Your task to perform on an android device: uninstall "Venmo" Image 0: 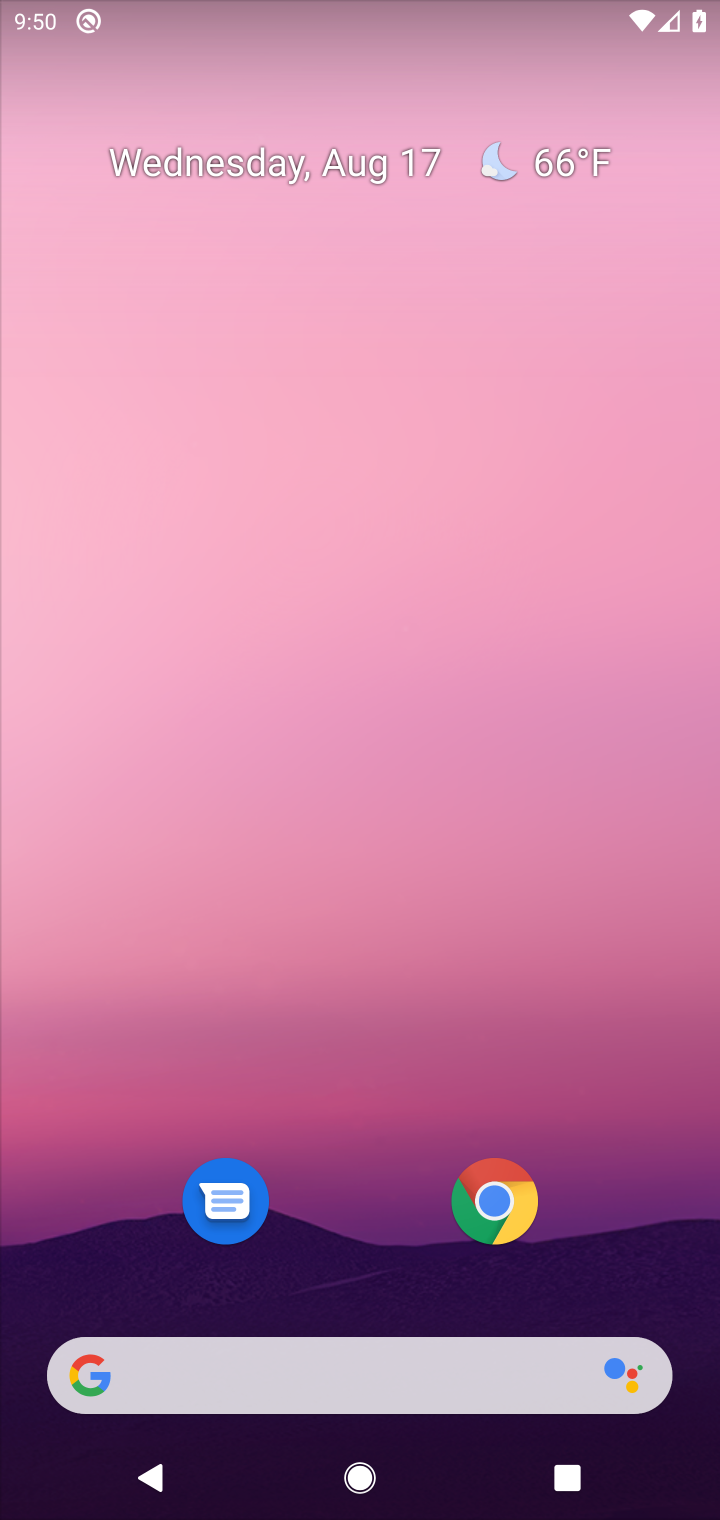
Step 0: press home button
Your task to perform on an android device: uninstall "Venmo" Image 1: 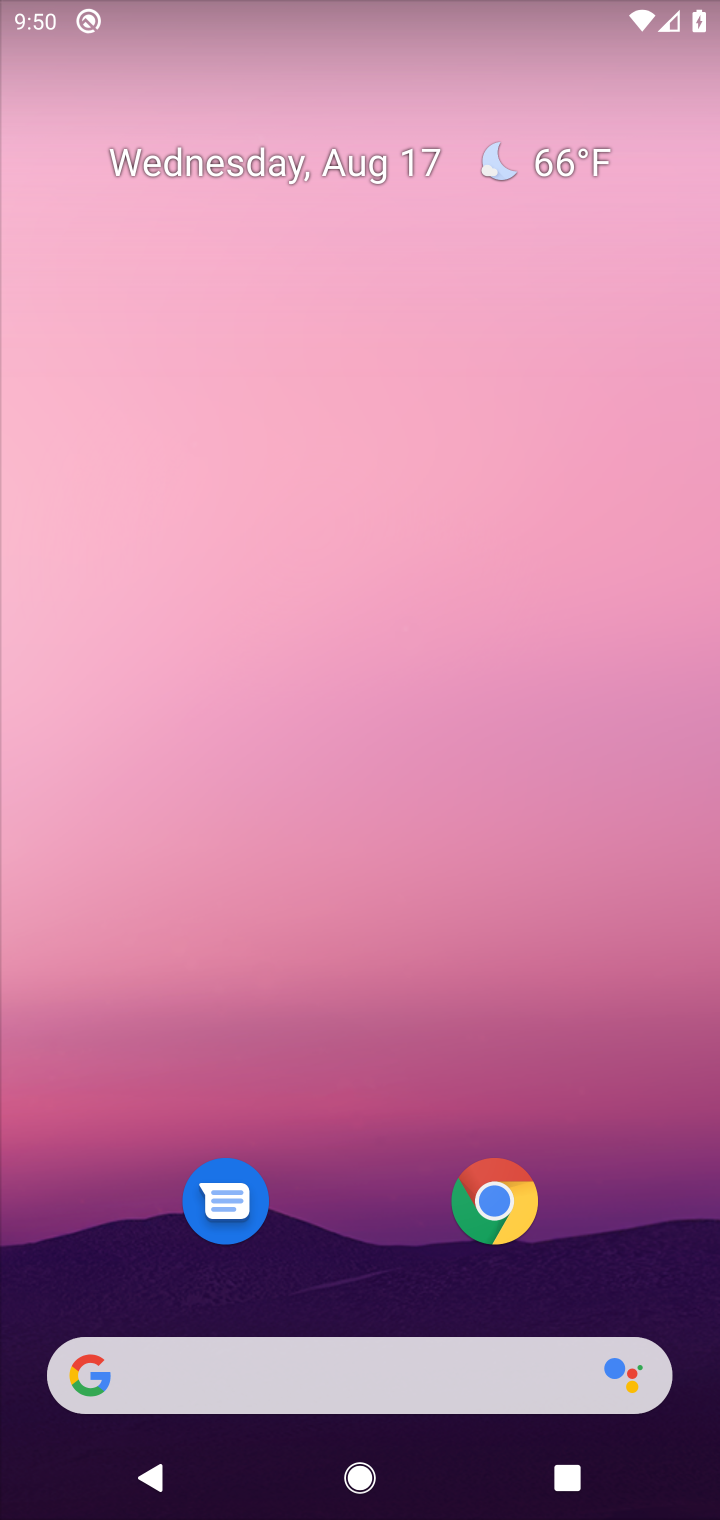
Step 1: press home button
Your task to perform on an android device: uninstall "Venmo" Image 2: 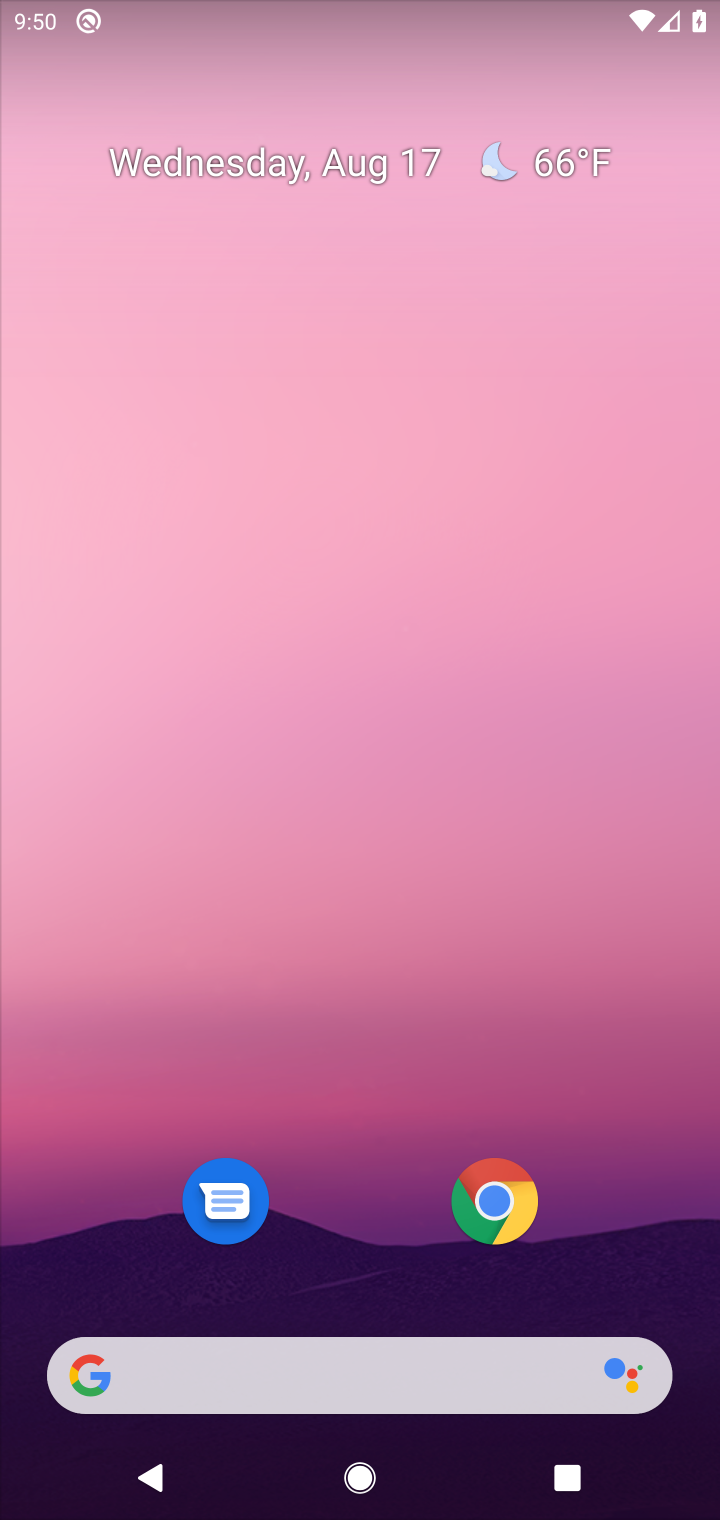
Step 2: drag from (358, 1283) to (340, 1)
Your task to perform on an android device: uninstall "Venmo" Image 3: 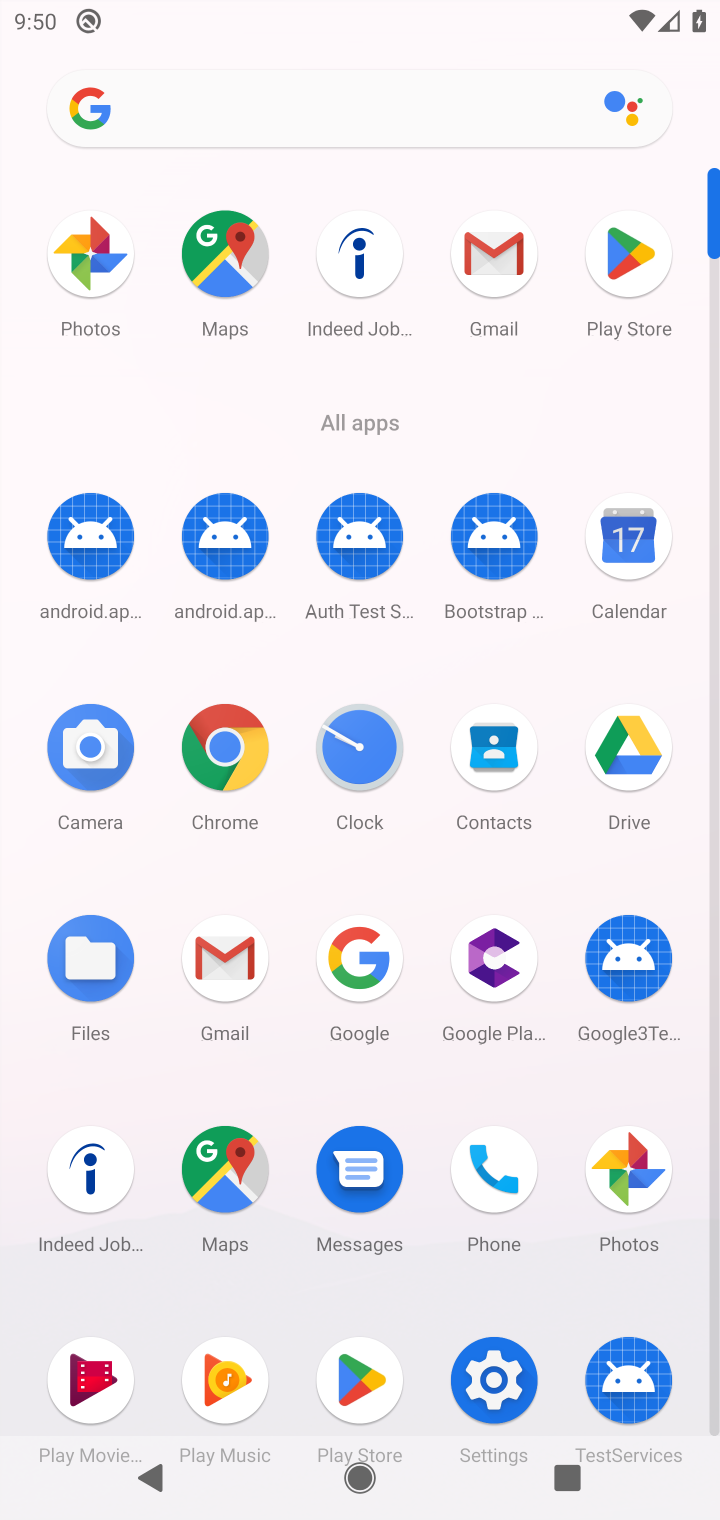
Step 3: click (352, 1369)
Your task to perform on an android device: uninstall "Venmo" Image 4: 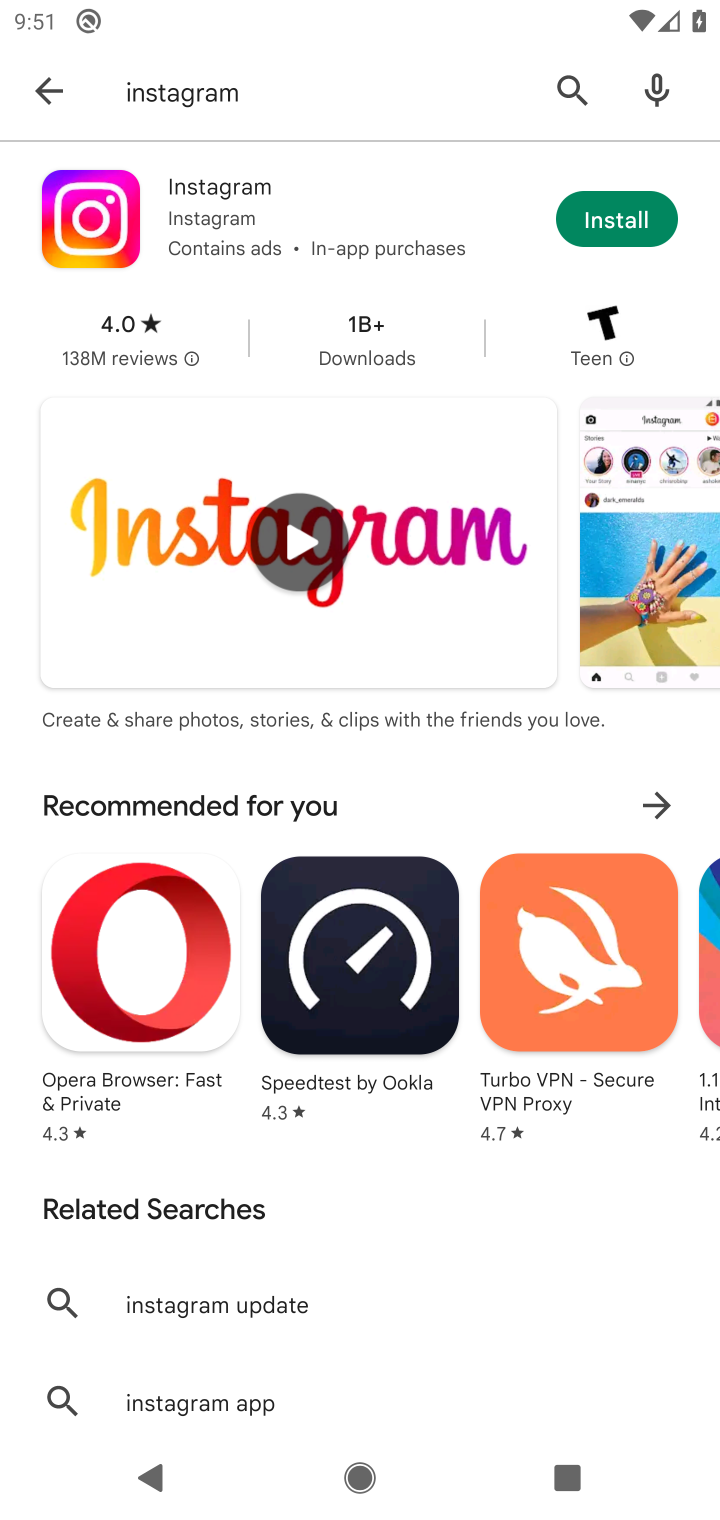
Step 4: click (571, 84)
Your task to perform on an android device: uninstall "Venmo" Image 5: 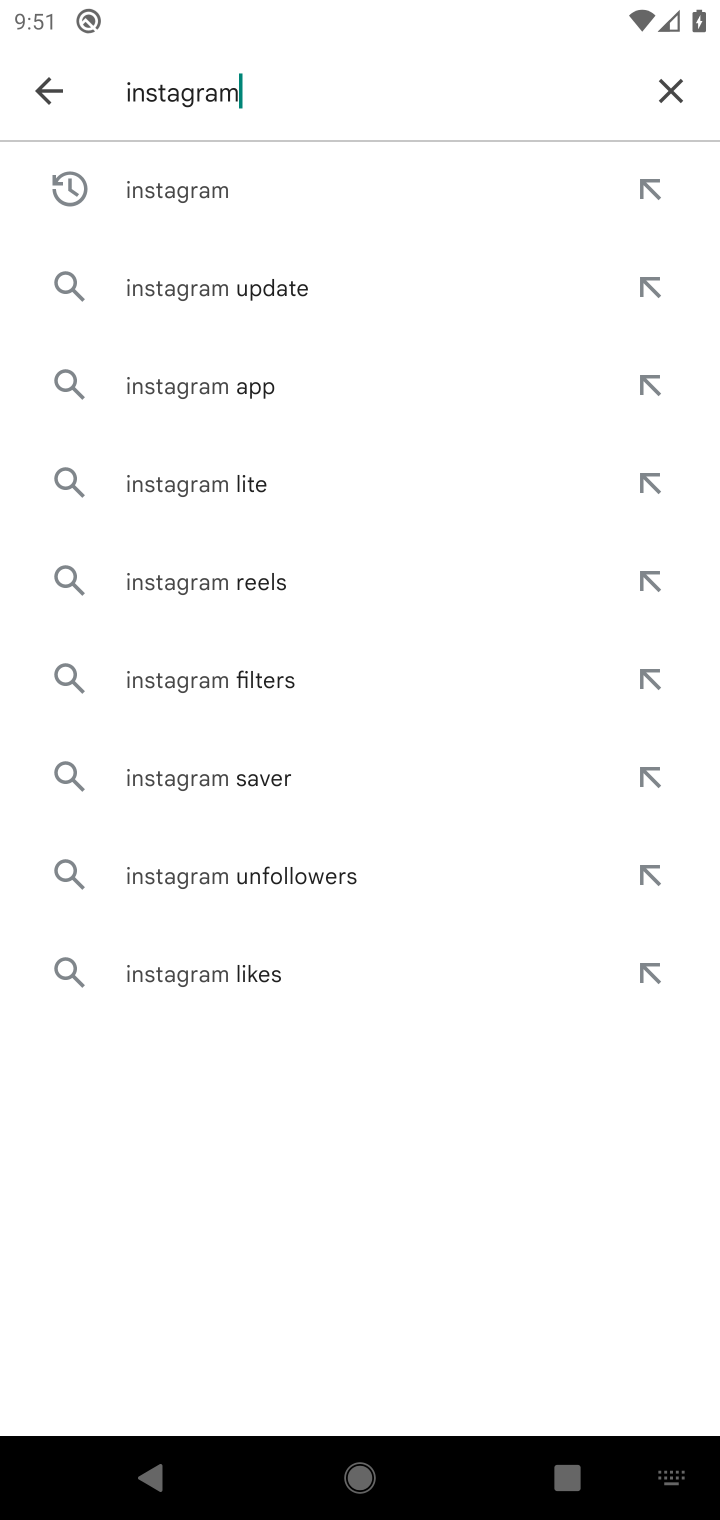
Step 5: click (653, 97)
Your task to perform on an android device: uninstall "Venmo" Image 6: 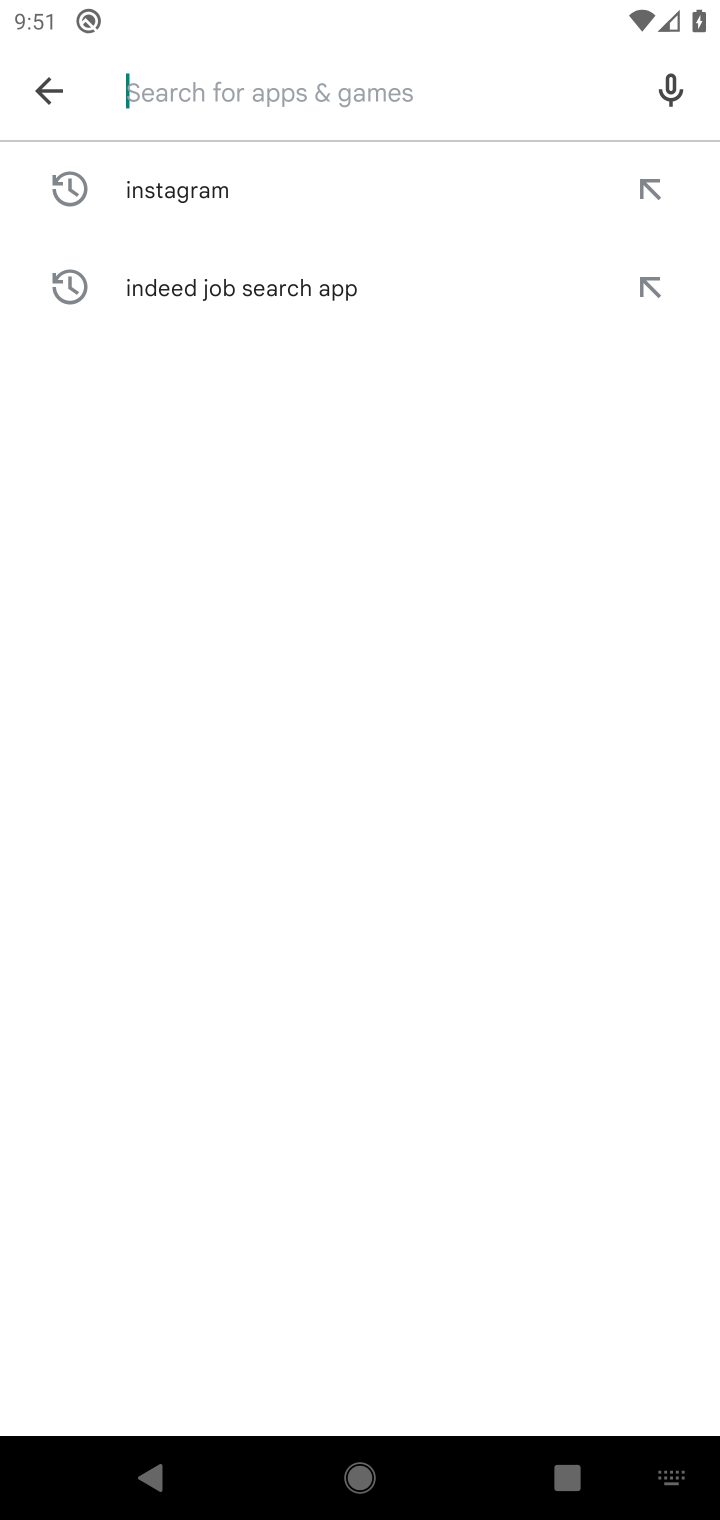
Step 6: type "Venmo"
Your task to perform on an android device: uninstall "Venmo" Image 7: 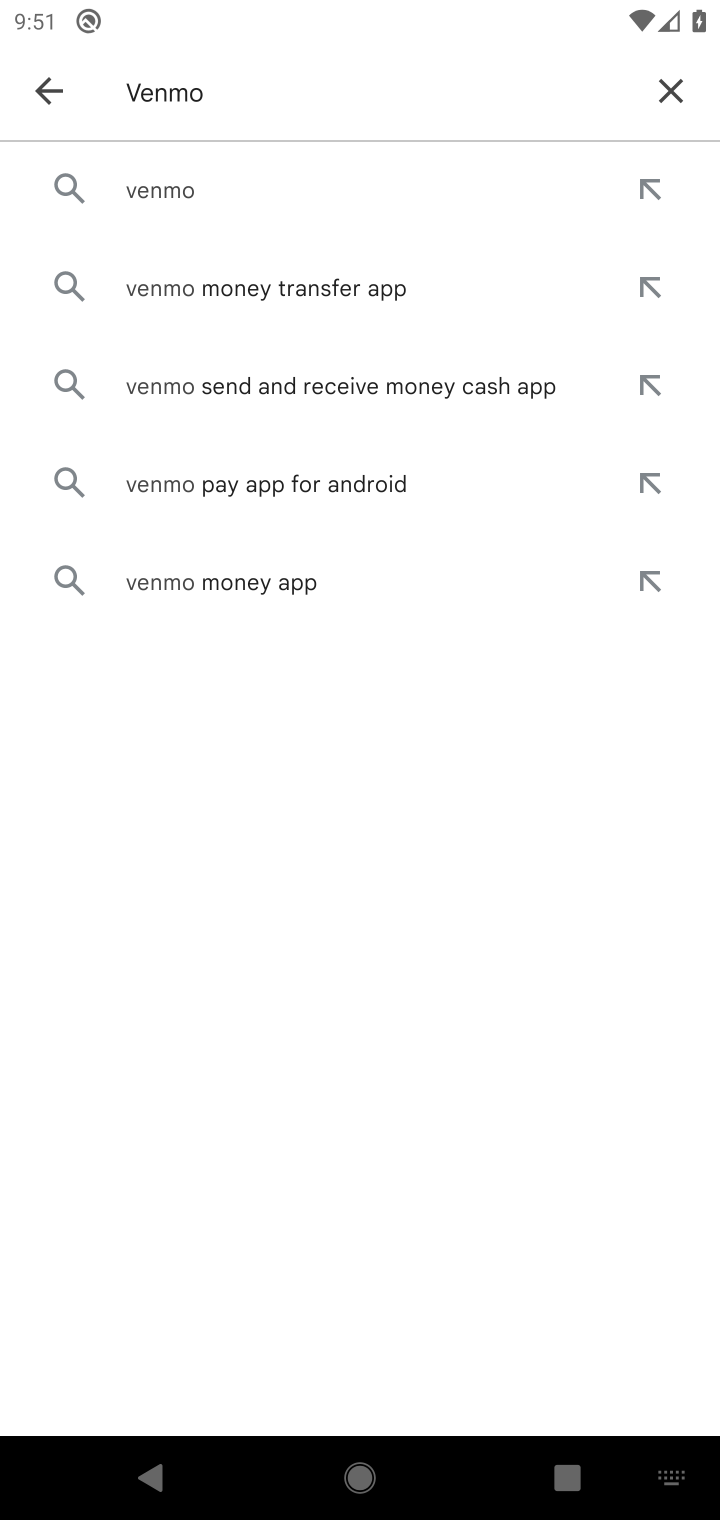
Step 7: click (199, 201)
Your task to perform on an android device: uninstall "Venmo" Image 8: 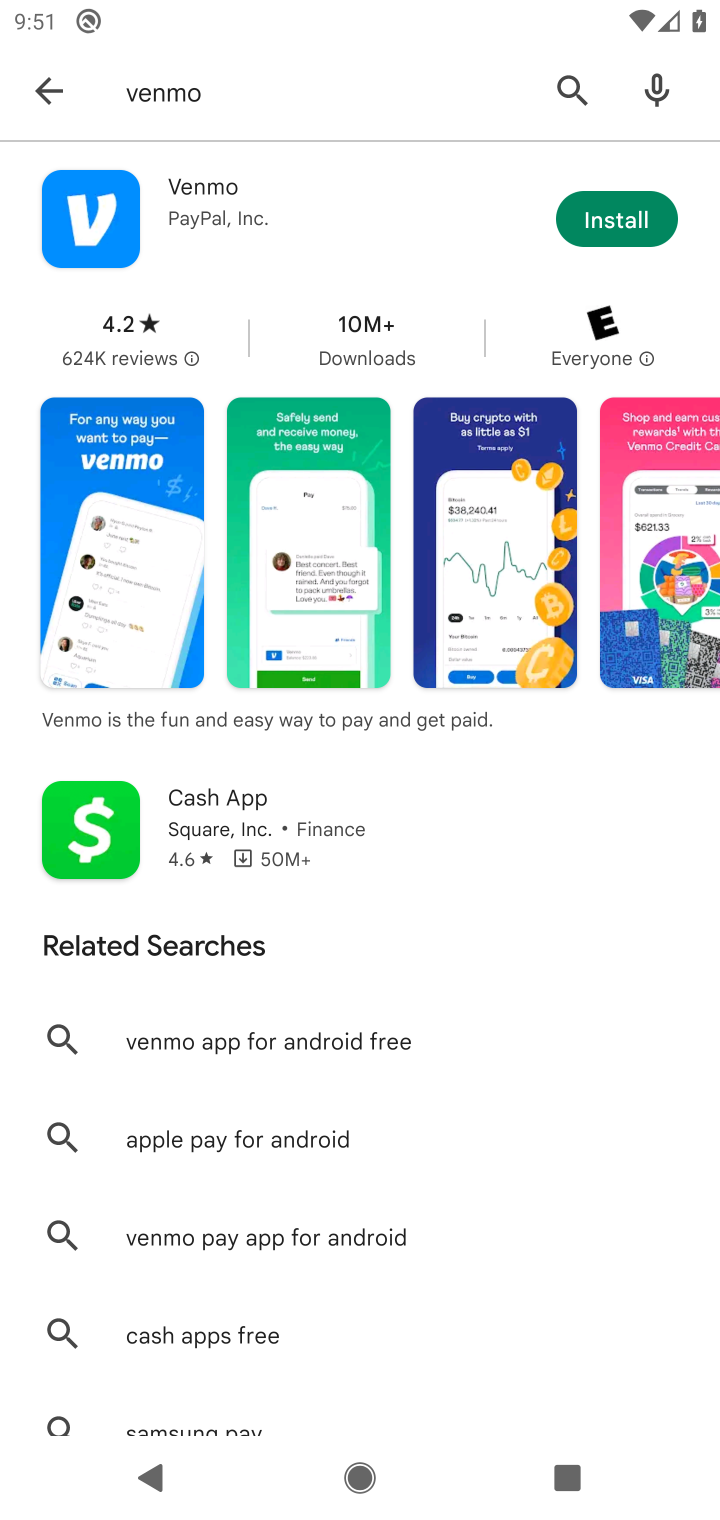
Step 8: task complete